Your task to perform on an android device: Is it going to rain today? Image 0: 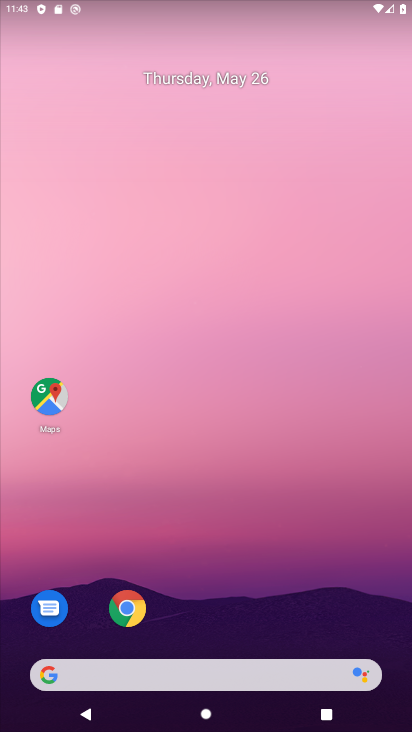
Step 0: drag from (266, 599) to (247, 44)
Your task to perform on an android device: Is it going to rain today? Image 1: 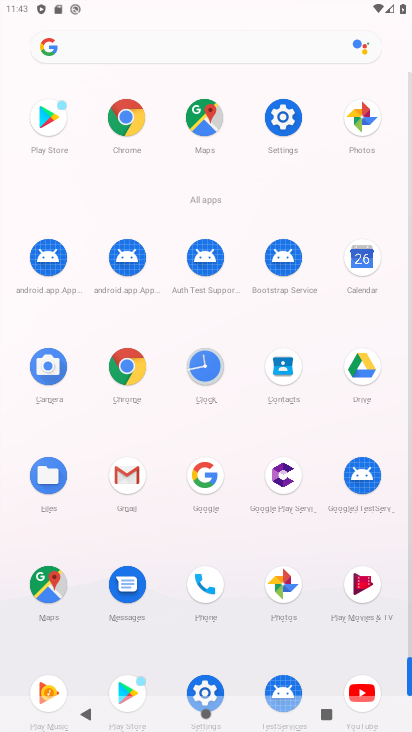
Step 1: click (127, 360)
Your task to perform on an android device: Is it going to rain today? Image 2: 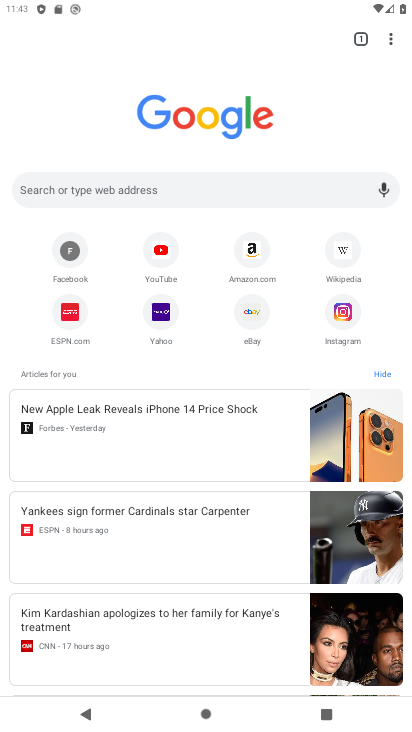
Step 2: click (168, 192)
Your task to perform on an android device: Is it going to rain today? Image 3: 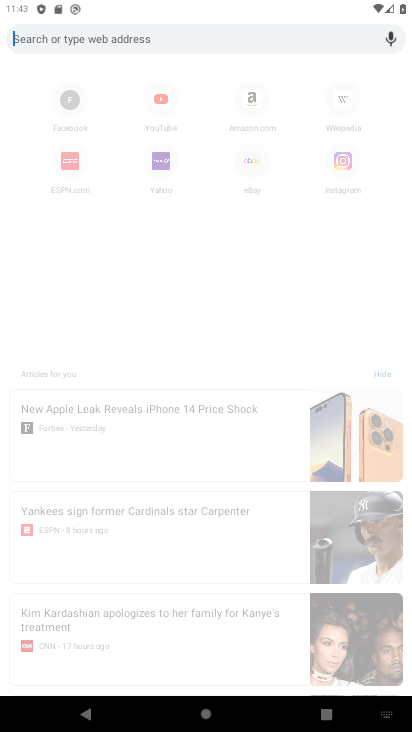
Step 3: type "Is it going to rain today?"
Your task to perform on an android device: Is it going to rain today? Image 4: 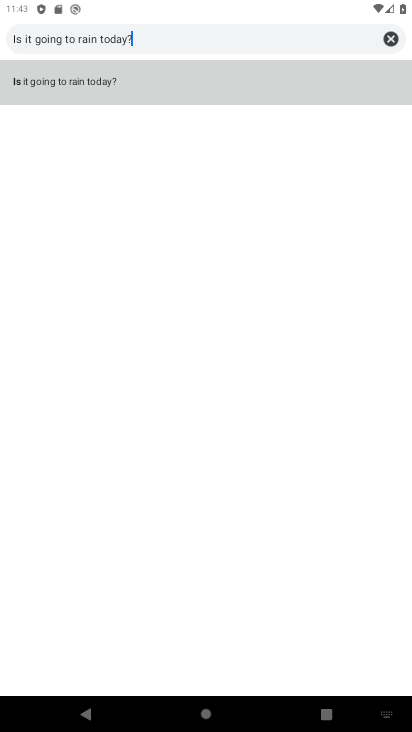
Step 4: type ""
Your task to perform on an android device: Is it going to rain today? Image 5: 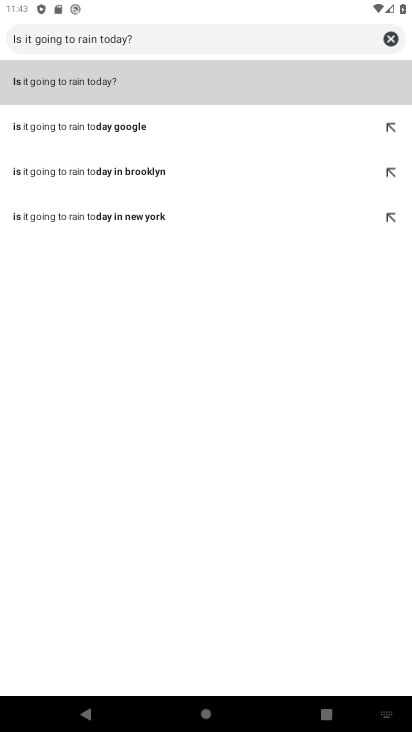
Step 5: click (106, 83)
Your task to perform on an android device: Is it going to rain today? Image 6: 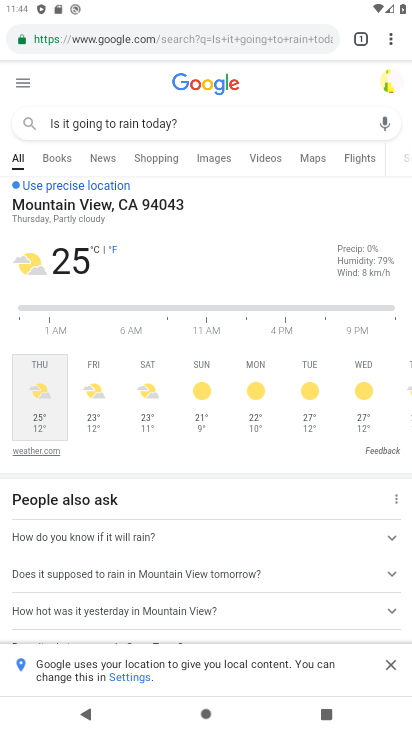
Step 6: task complete